Your task to perform on an android device: toggle notification dots Image 0: 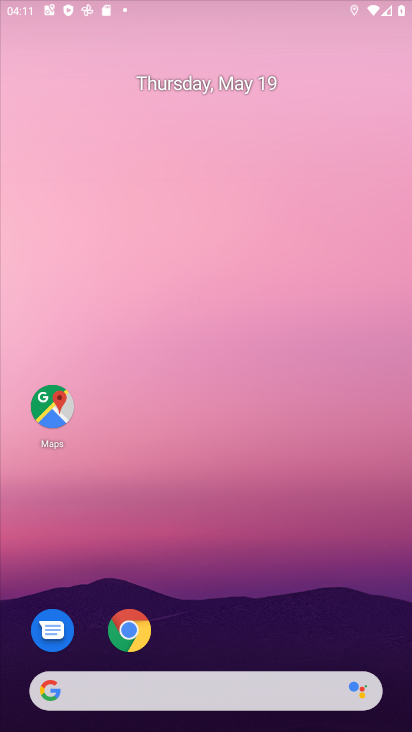
Step 0: drag from (384, 648) to (296, 28)
Your task to perform on an android device: toggle notification dots Image 1: 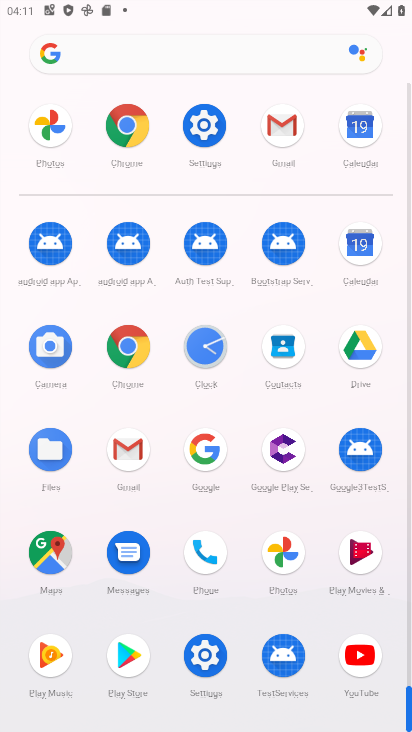
Step 1: click (206, 656)
Your task to perform on an android device: toggle notification dots Image 2: 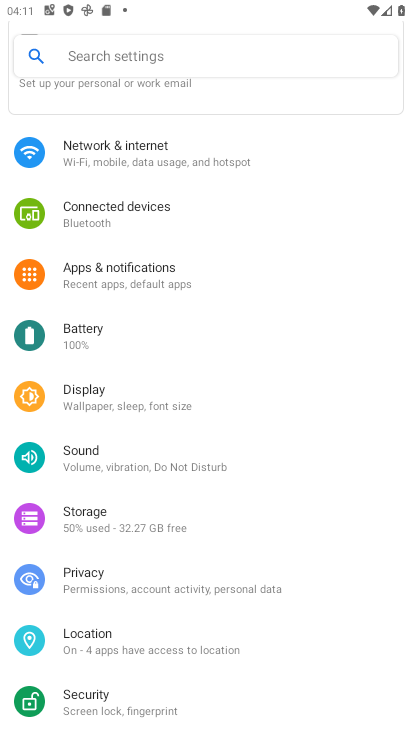
Step 2: click (111, 272)
Your task to perform on an android device: toggle notification dots Image 3: 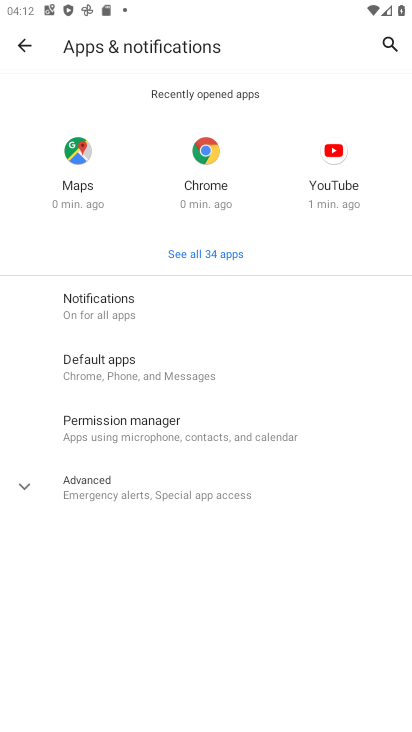
Step 3: click (102, 289)
Your task to perform on an android device: toggle notification dots Image 4: 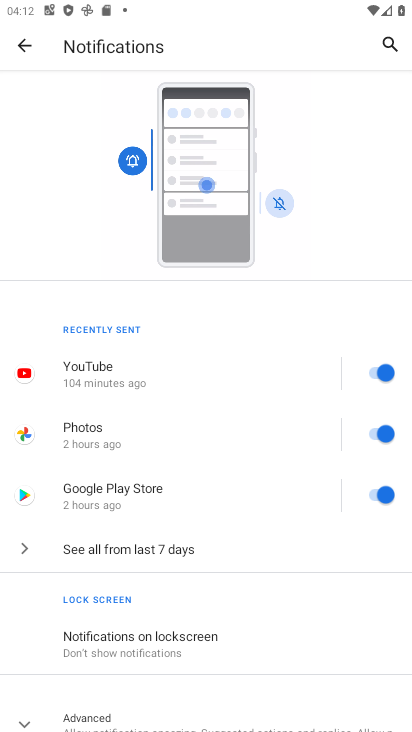
Step 4: drag from (218, 607) to (210, 307)
Your task to perform on an android device: toggle notification dots Image 5: 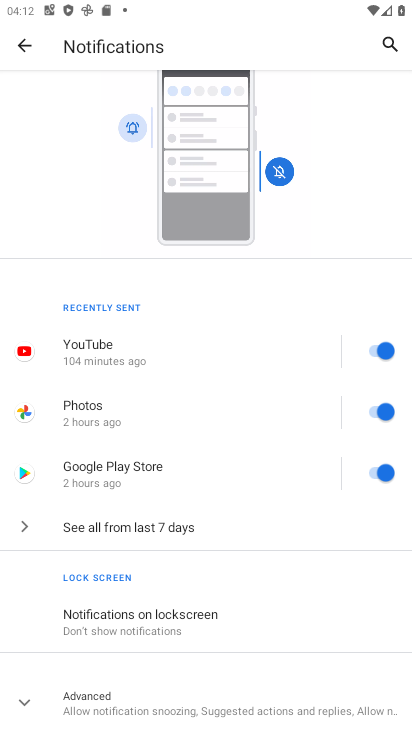
Step 5: click (22, 701)
Your task to perform on an android device: toggle notification dots Image 6: 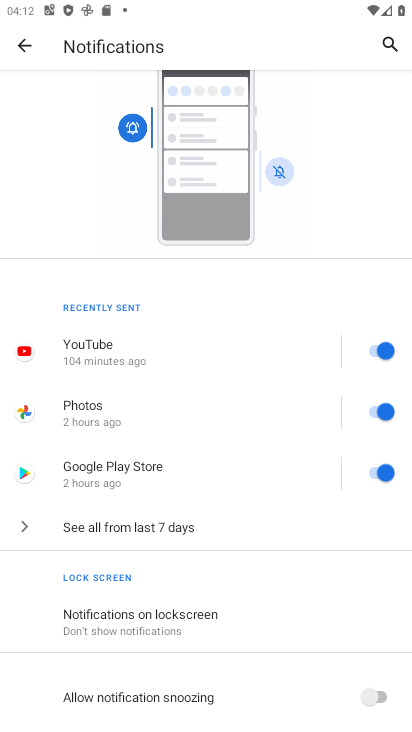
Step 6: drag from (285, 660) to (254, 226)
Your task to perform on an android device: toggle notification dots Image 7: 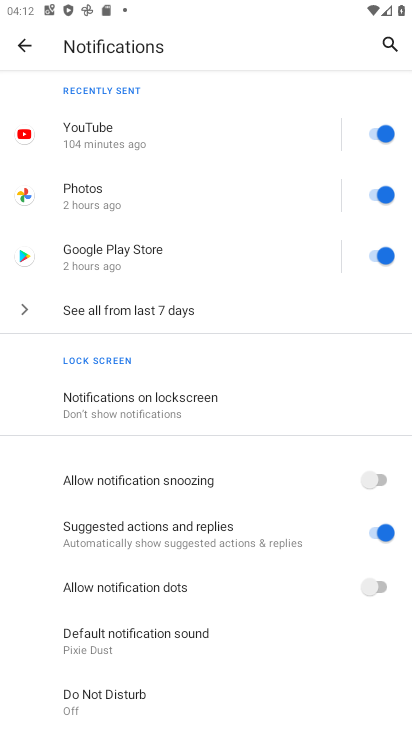
Step 7: click (381, 582)
Your task to perform on an android device: toggle notification dots Image 8: 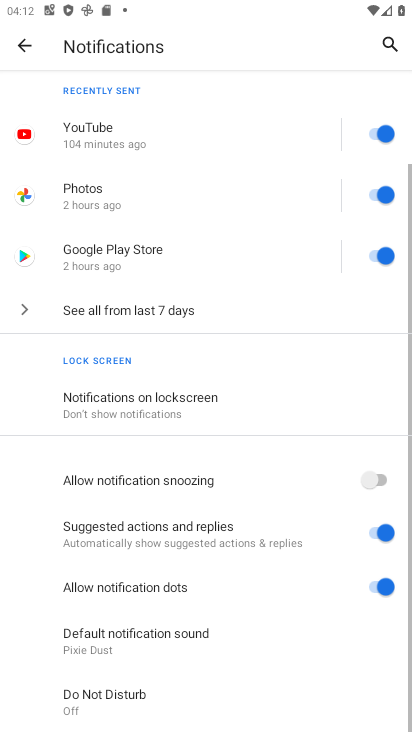
Step 8: task complete